Your task to perform on an android device: install app "Airtel Thanks" Image 0: 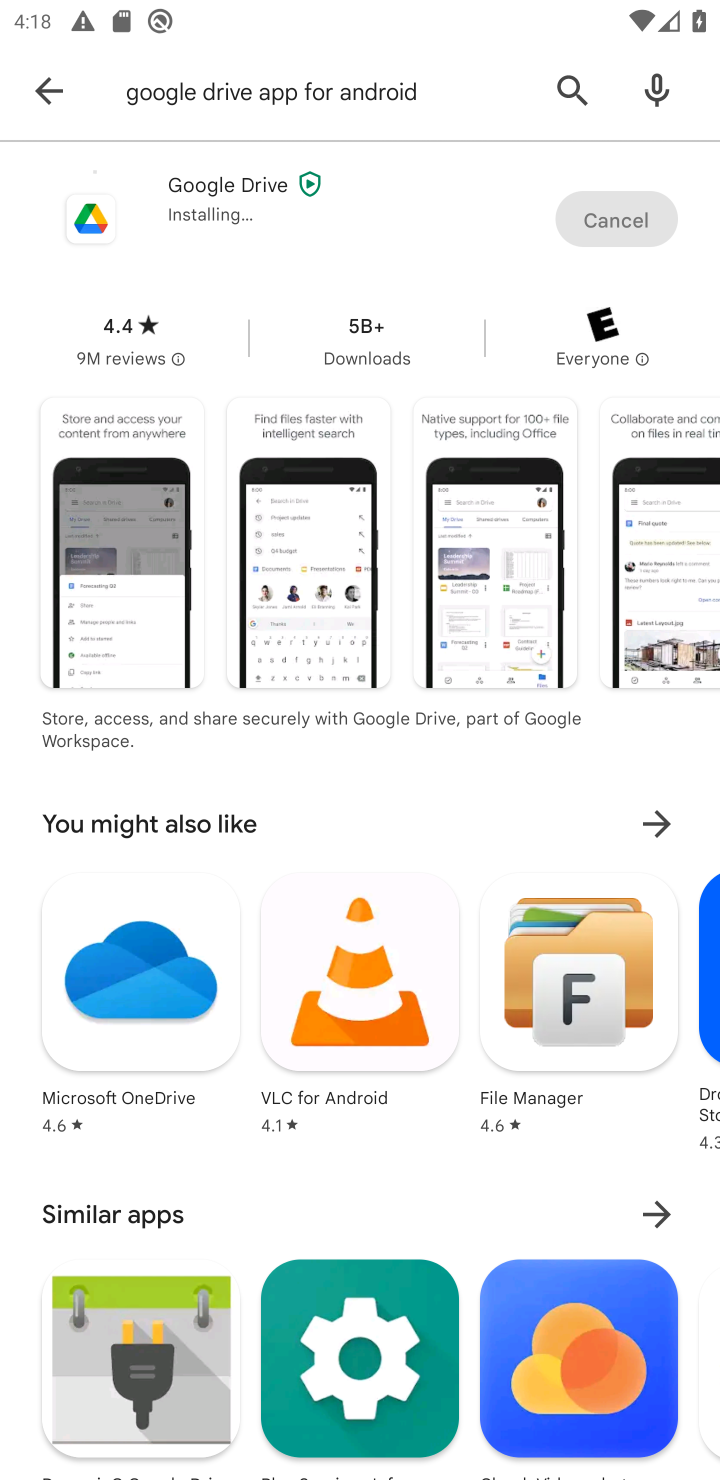
Step 0: drag from (355, 1311) to (442, 352)
Your task to perform on an android device: install app "Airtel Thanks" Image 1: 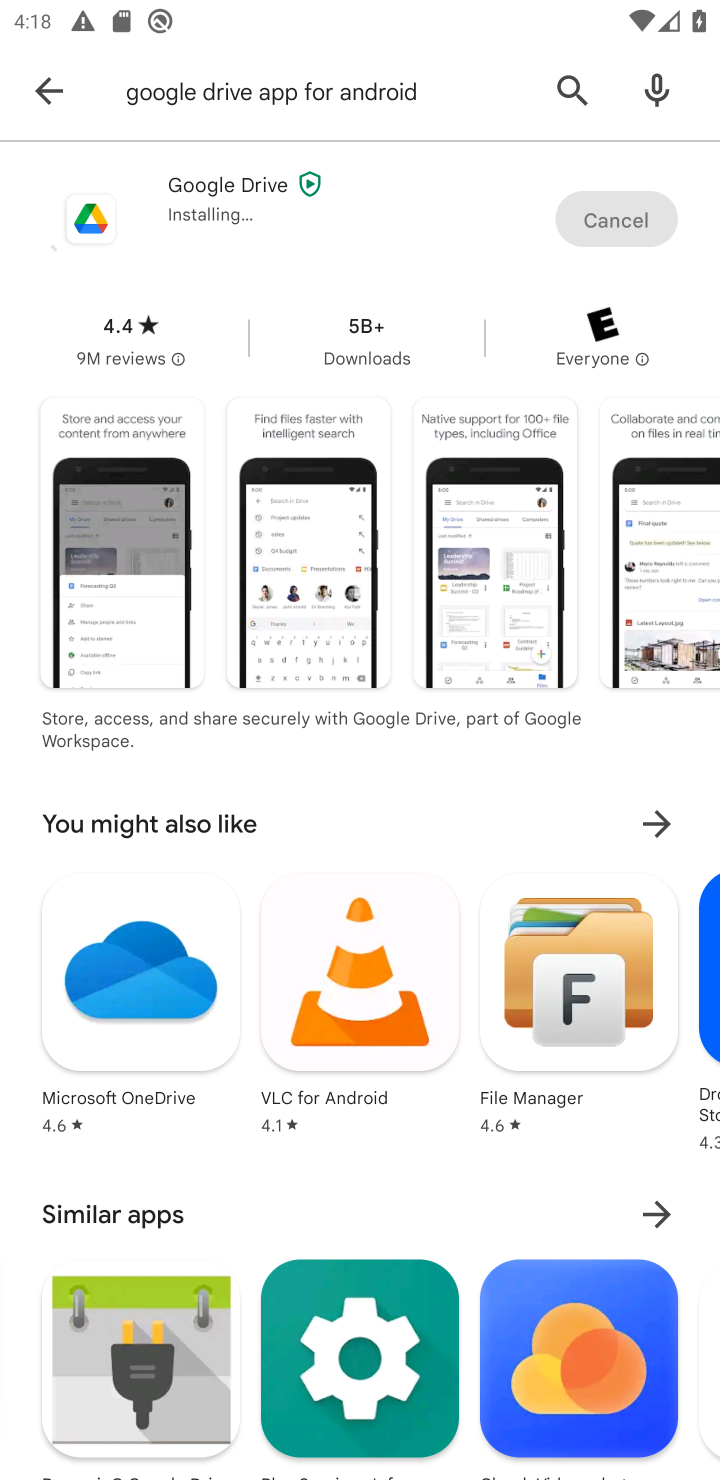
Step 1: click (78, 97)
Your task to perform on an android device: install app "Airtel Thanks" Image 2: 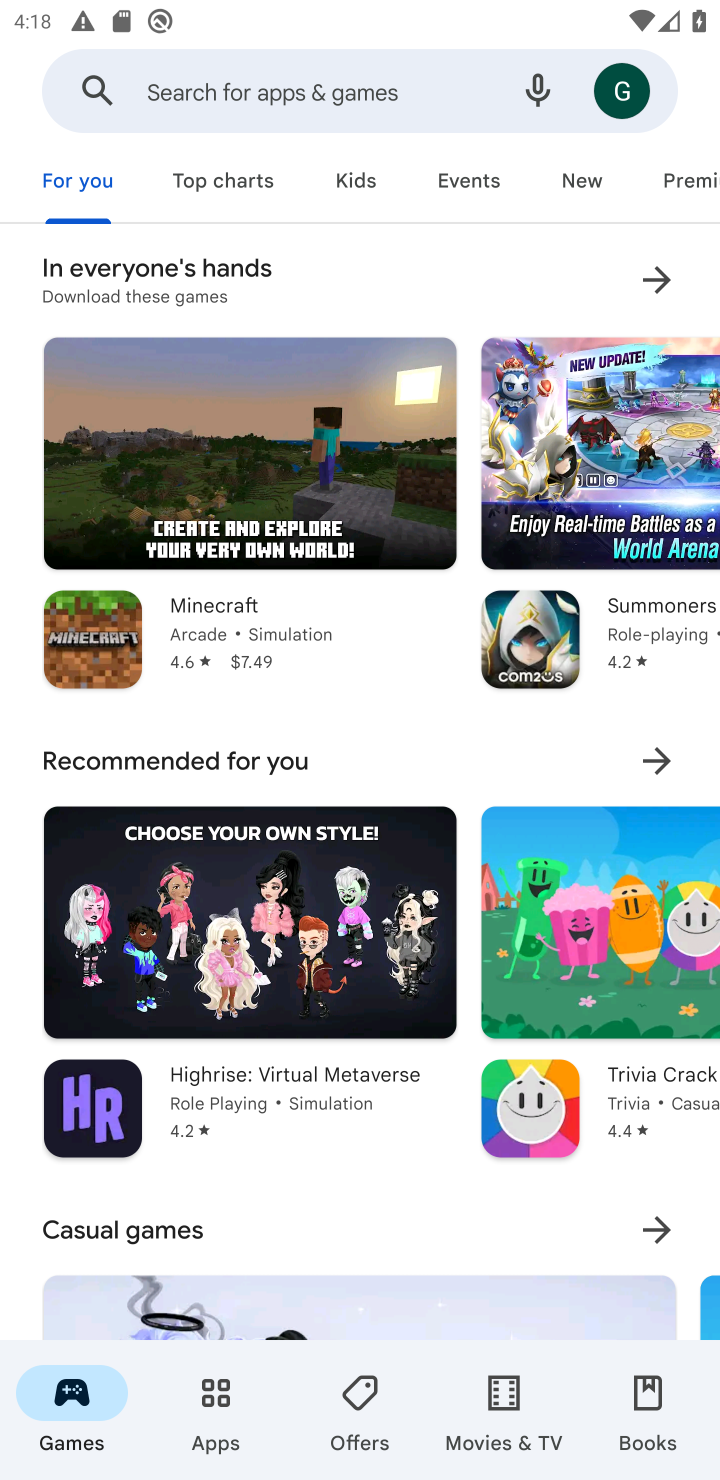
Step 2: click (276, 65)
Your task to perform on an android device: install app "Airtel Thanks" Image 3: 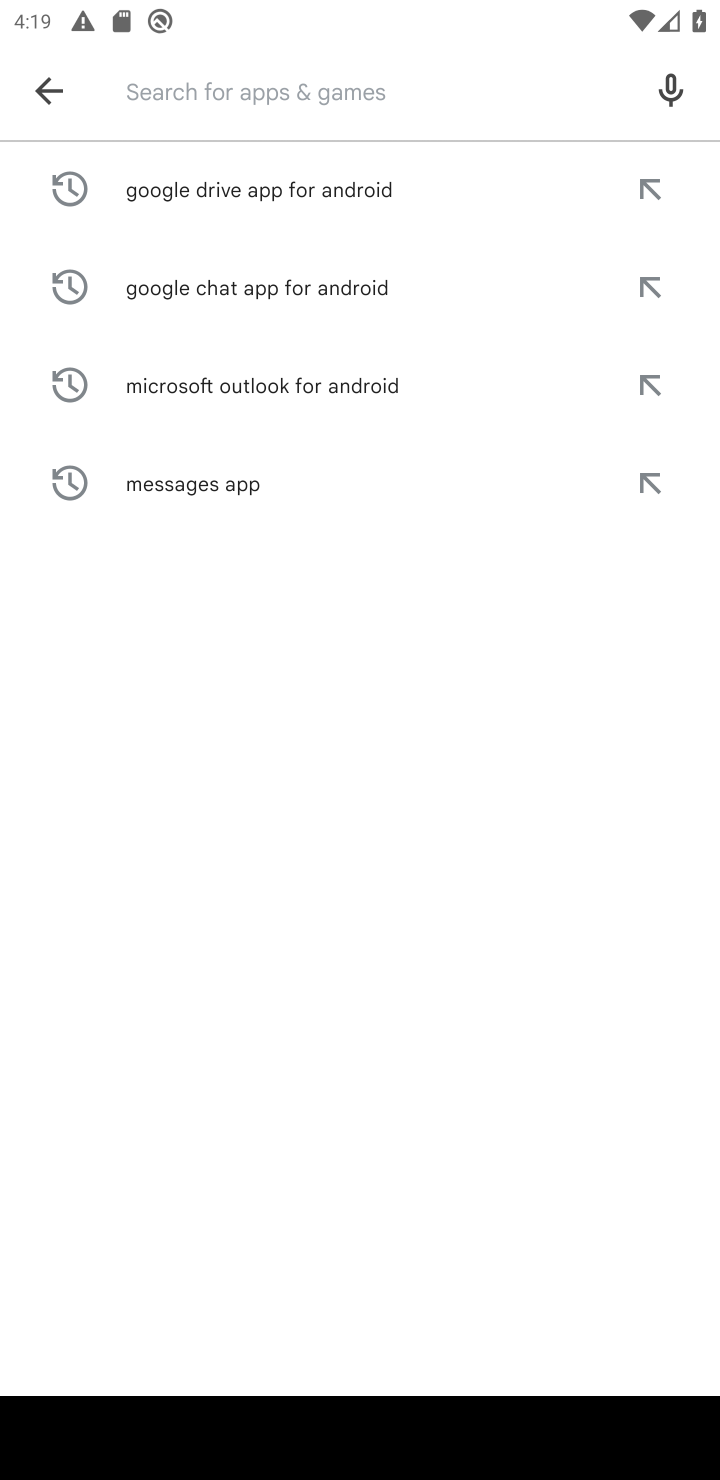
Step 3: type "airtel thanks"
Your task to perform on an android device: install app "Airtel Thanks" Image 4: 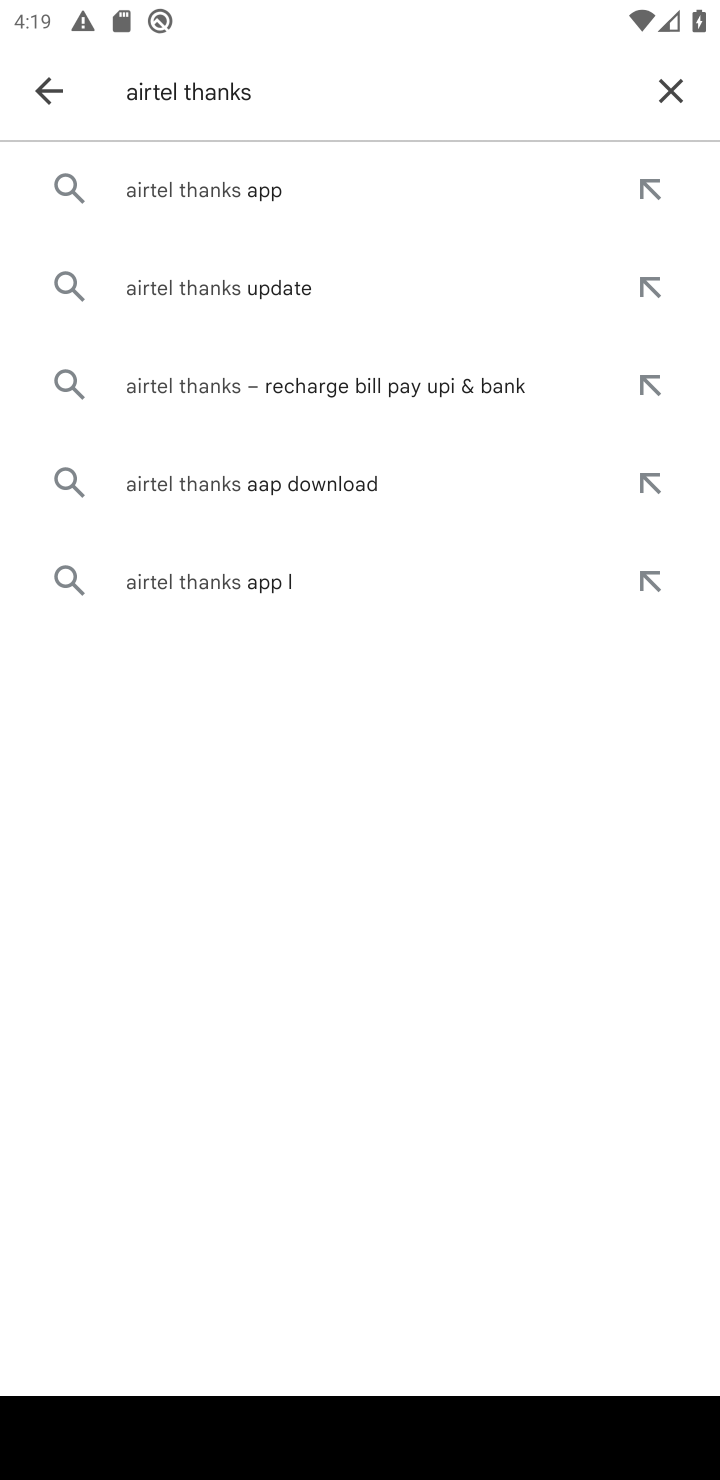
Step 4: click (232, 195)
Your task to perform on an android device: install app "Airtel Thanks" Image 5: 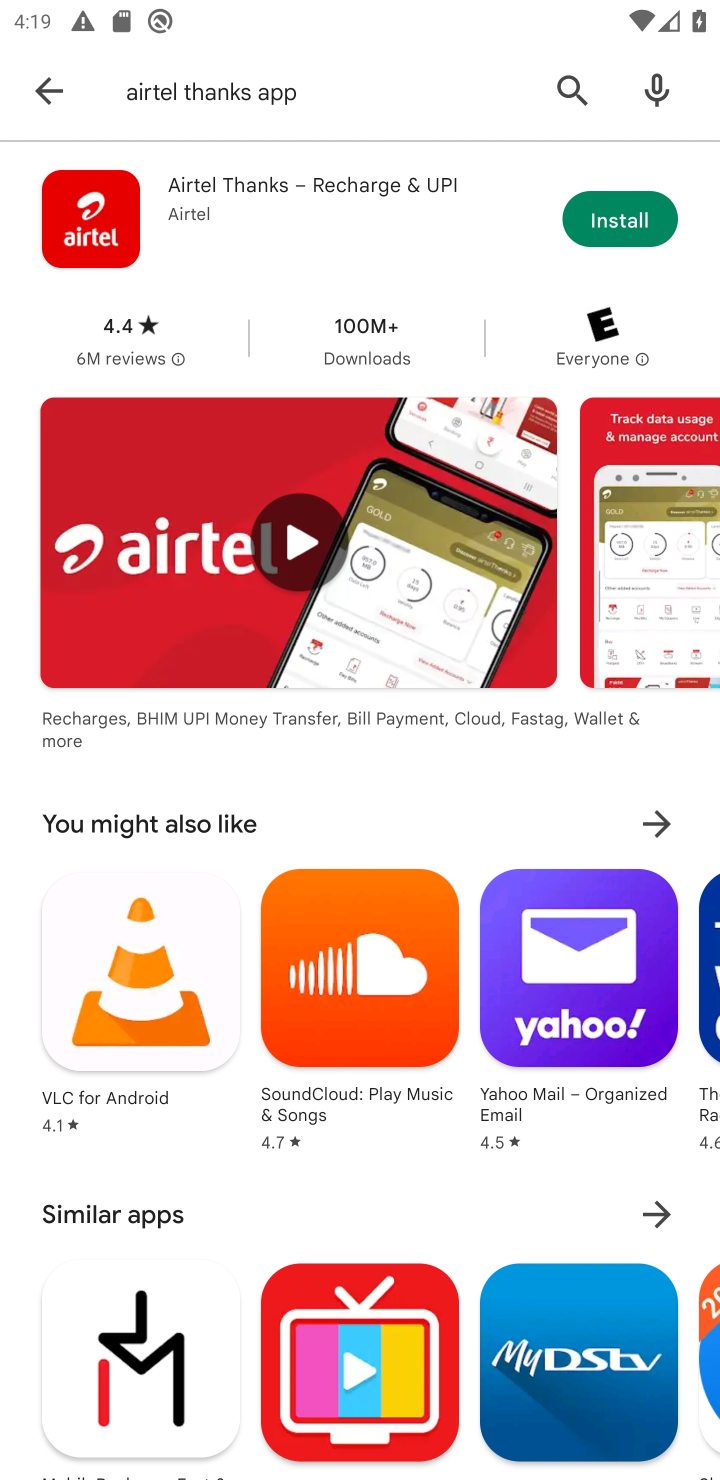
Step 5: click (644, 217)
Your task to perform on an android device: install app "Airtel Thanks" Image 6: 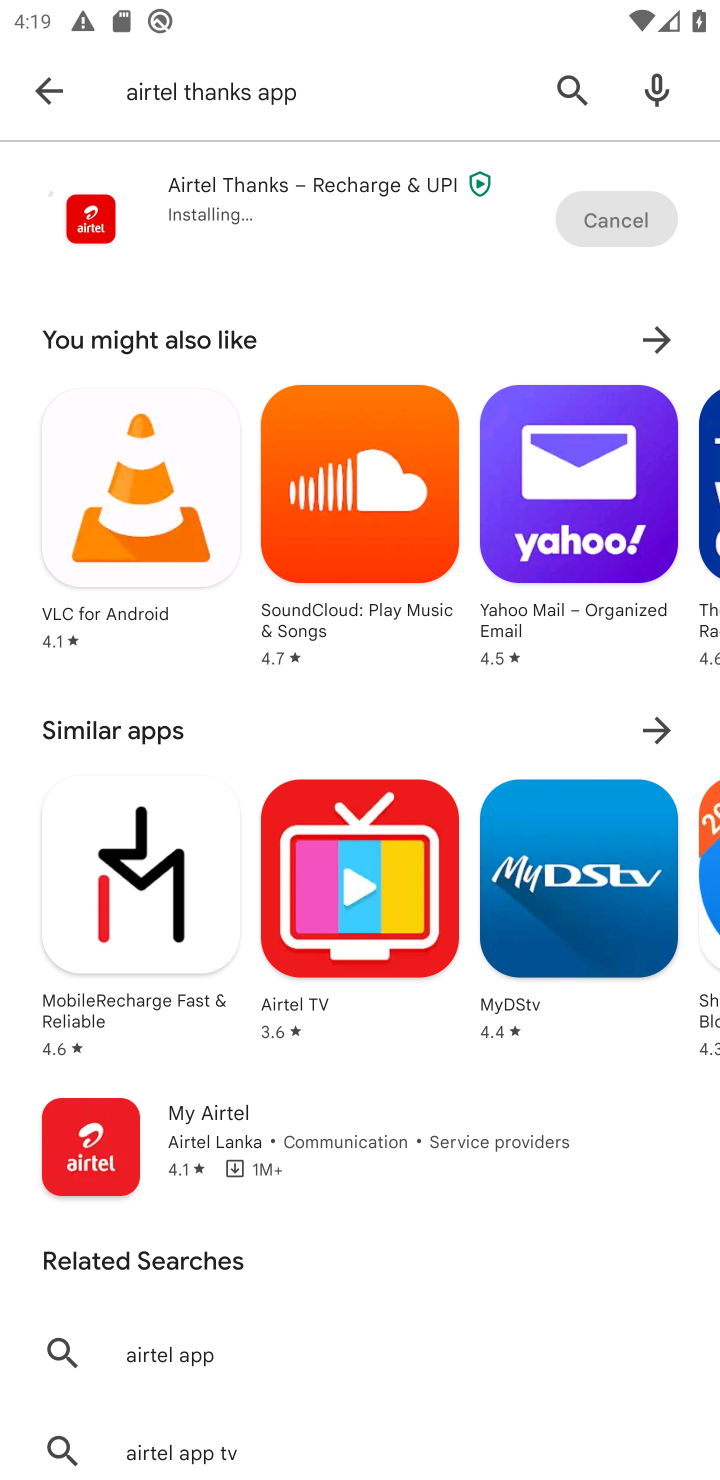
Step 6: task complete